Your task to perform on an android device: Open calendar and show me the second week of next month Image 0: 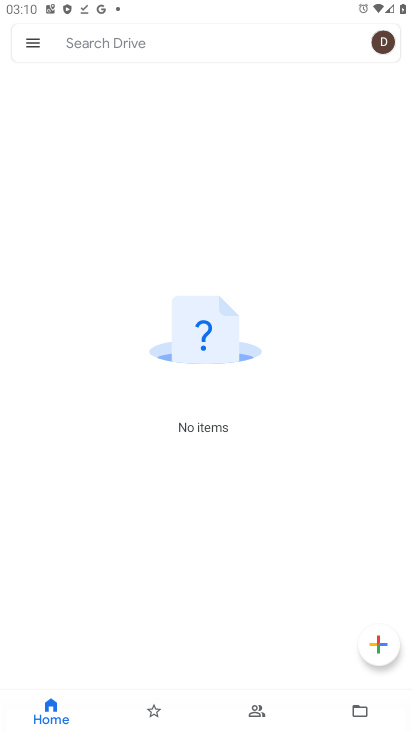
Step 0: press home button
Your task to perform on an android device: Open calendar and show me the second week of next month Image 1: 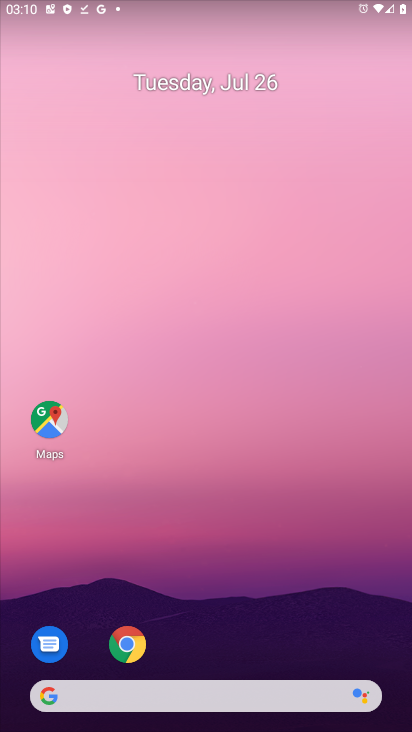
Step 1: drag from (174, 653) to (179, 95)
Your task to perform on an android device: Open calendar and show me the second week of next month Image 2: 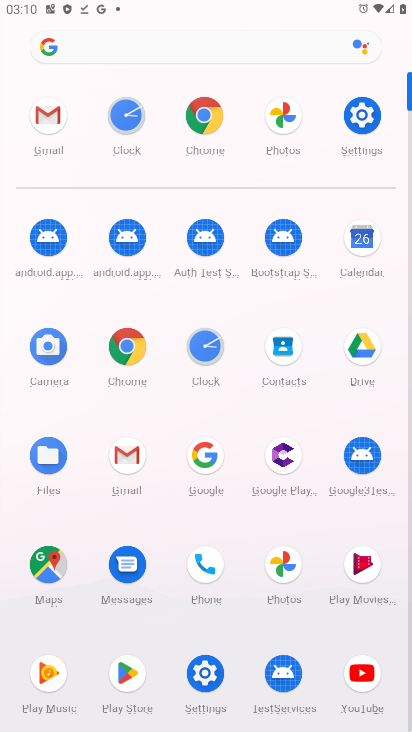
Step 2: click (352, 245)
Your task to perform on an android device: Open calendar and show me the second week of next month Image 3: 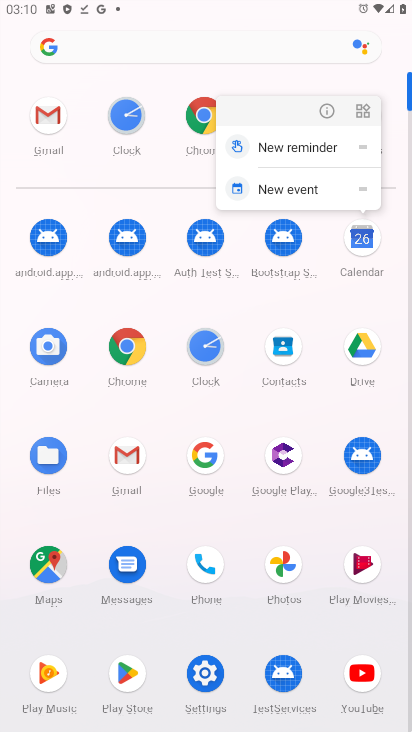
Step 3: click (364, 254)
Your task to perform on an android device: Open calendar and show me the second week of next month Image 4: 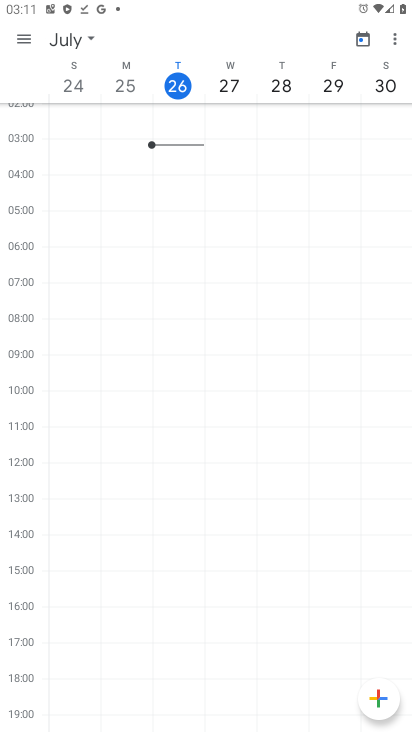
Step 4: task complete